Your task to perform on an android device: Turn on the flashlight Image 0: 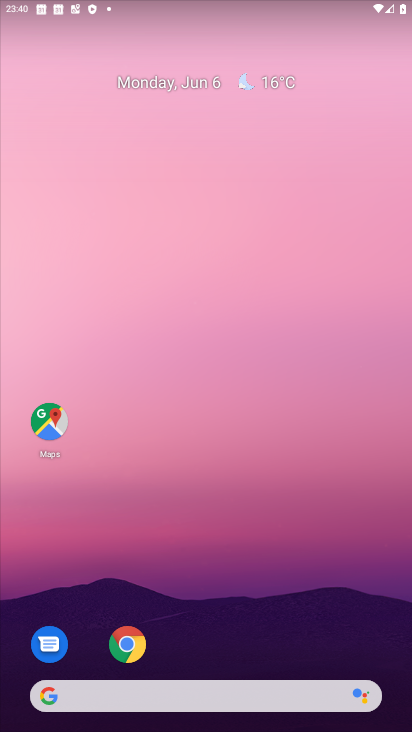
Step 0: drag from (230, 589) to (124, 44)
Your task to perform on an android device: Turn on the flashlight Image 1: 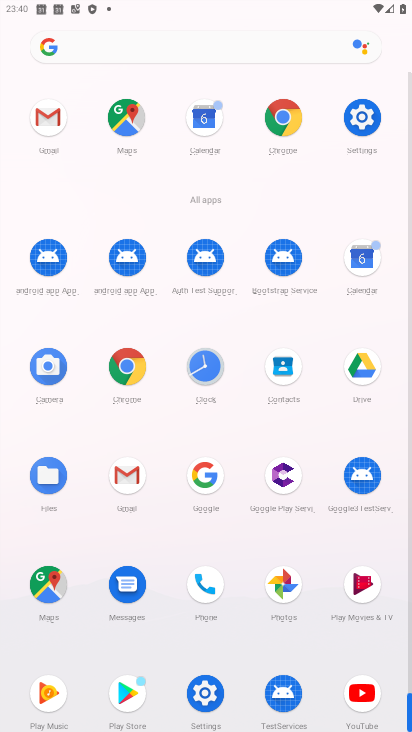
Step 1: click (204, 691)
Your task to perform on an android device: Turn on the flashlight Image 2: 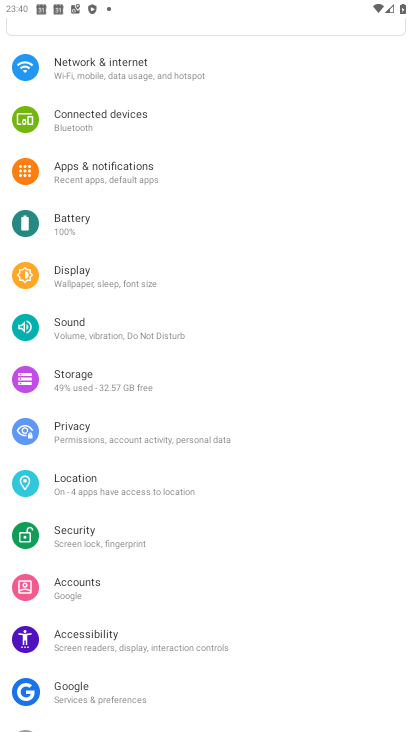
Step 2: drag from (236, 141) to (237, 582)
Your task to perform on an android device: Turn on the flashlight Image 3: 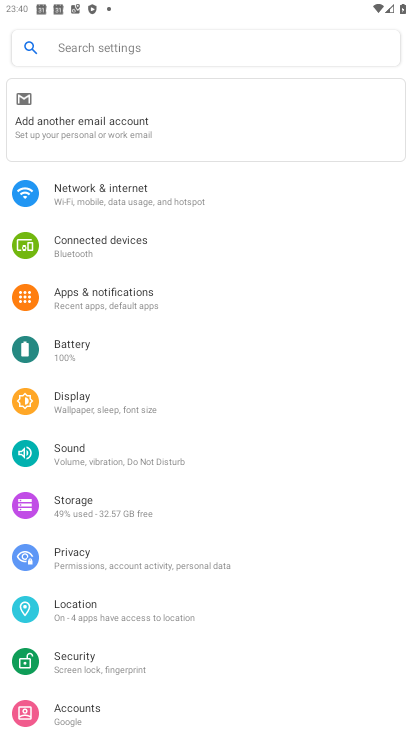
Step 3: click (187, 201)
Your task to perform on an android device: Turn on the flashlight Image 4: 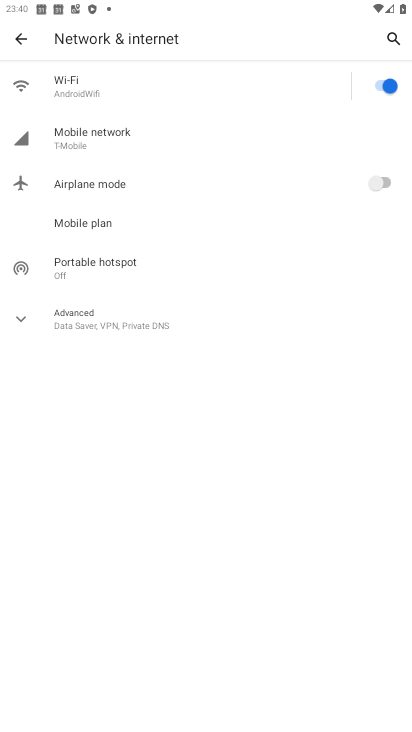
Step 4: click (20, 318)
Your task to perform on an android device: Turn on the flashlight Image 5: 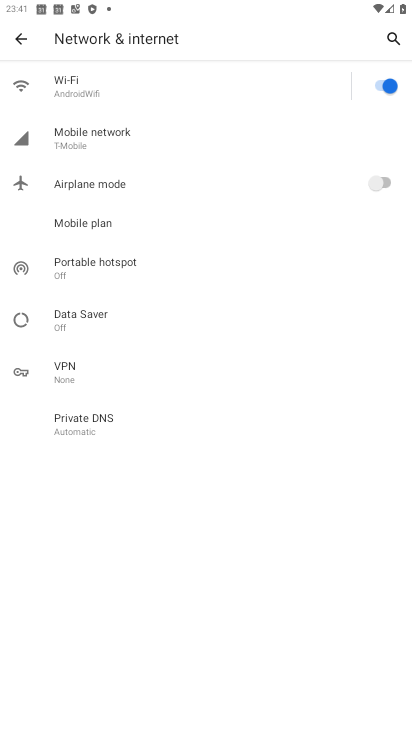
Step 5: task complete